Your task to perform on an android device: Open Yahoo.com Image 0: 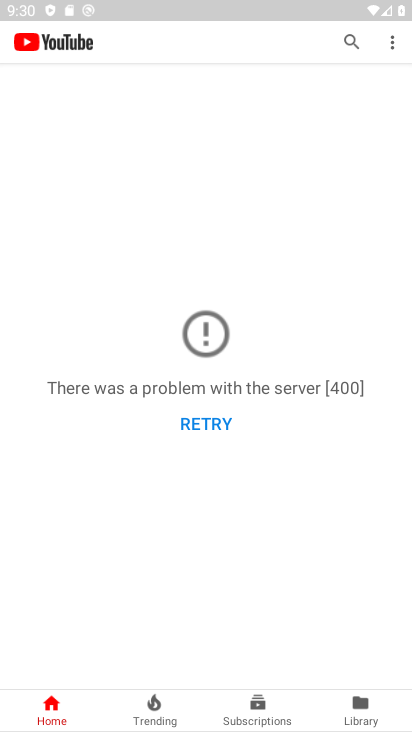
Step 0: press home button
Your task to perform on an android device: Open Yahoo.com Image 1: 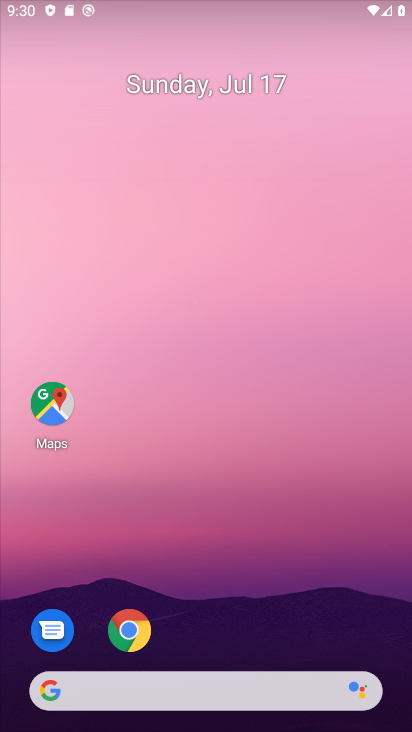
Step 1: drag from (203, 643) to (246, 131)
Your task to perform on an android device: Open Yahoo.com Image 2: 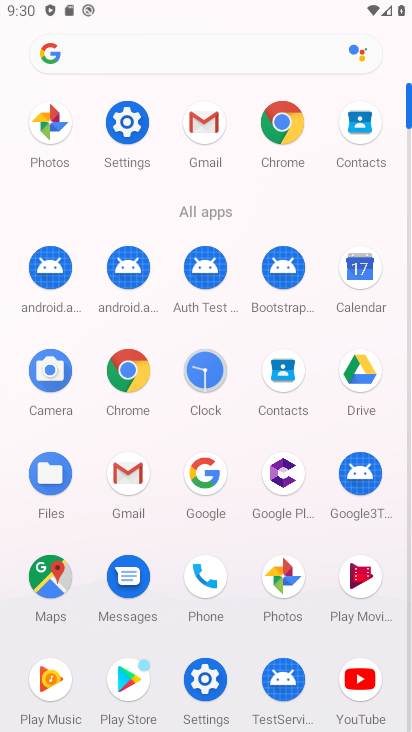
Step 2: click (119, 366)
Your task to perform on an android device: Open Yahoo.com Image 3: 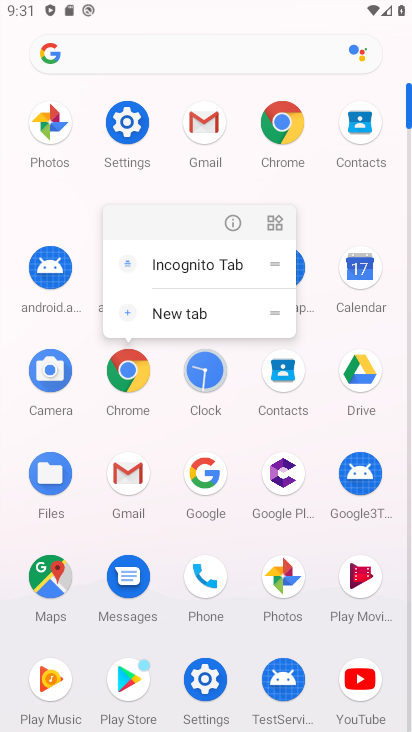
Step 3: click (132, 365)
Your task to perform on an android device: Open Yahoo.com Image 4: 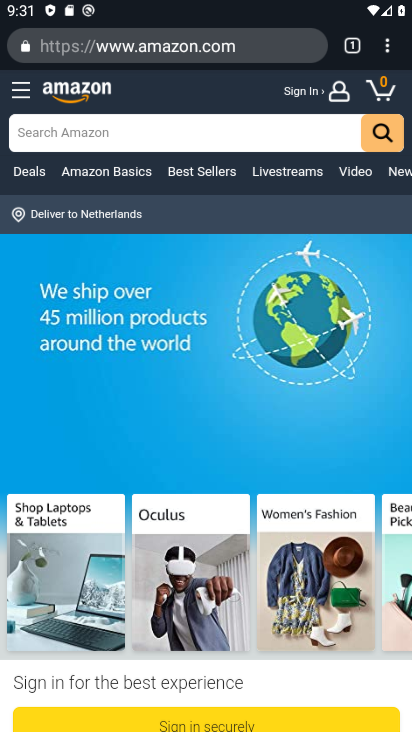
Step 4: drag from (387, 49) to (353, 92)
Your task to perform on an android device: Open Yahoo.com Image 5: 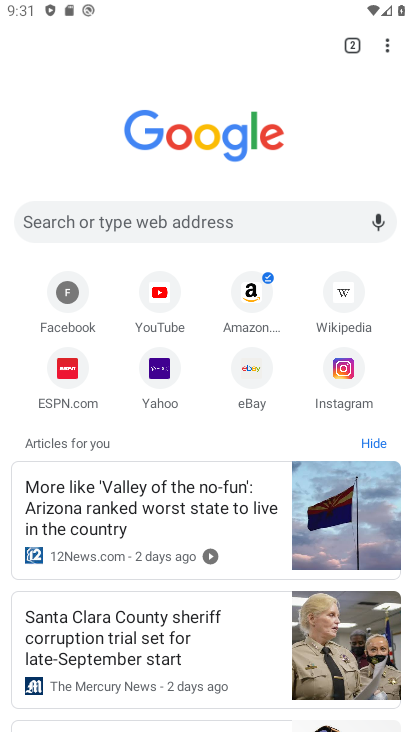
Step 5: click (160, 378)
Your task to perform on an android device: Open Yahoo.com Image 6: 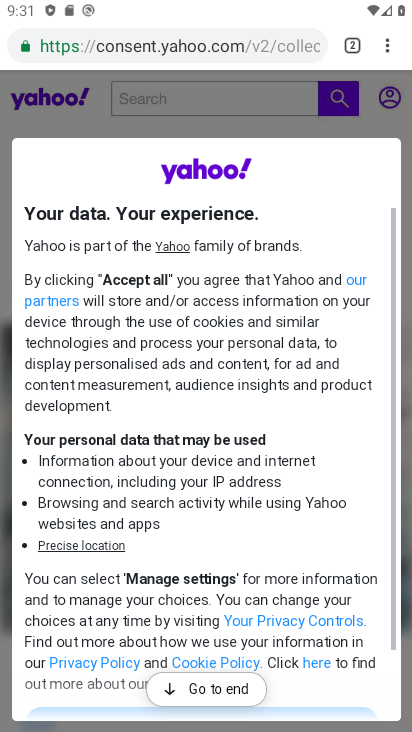
Step 6: drag from (204, 564) to (292, 267)
Your task to perform on an android device: Open Yahoo.com Image 7: 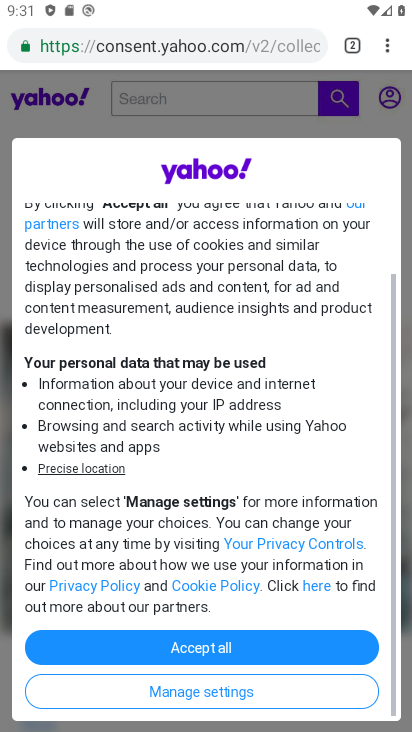
Step 7: click (213, 640)
Your task to perform on an android device: Open Yahoo.com Image 8: 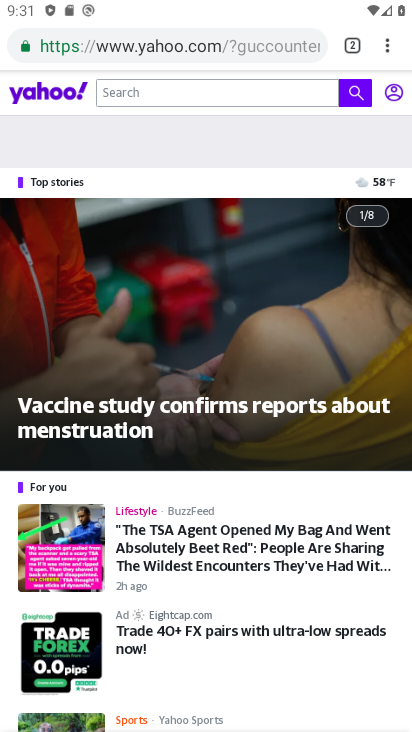
Step 8: task complete